Your task to perform on an android device: check battery use Image 0: 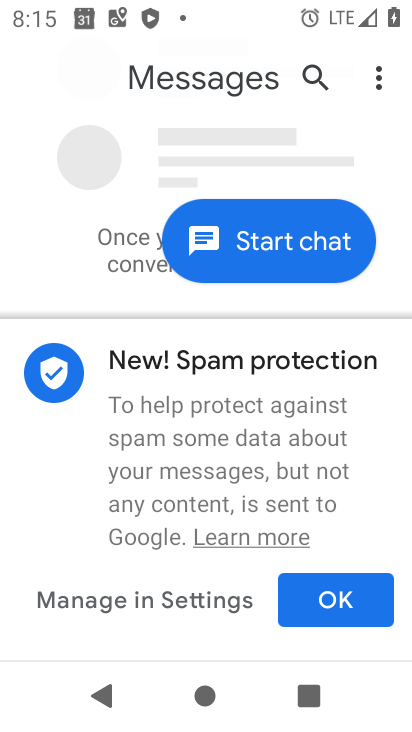
Step 0: press home button
Your task to perform on an android device: check battery use Image 1: 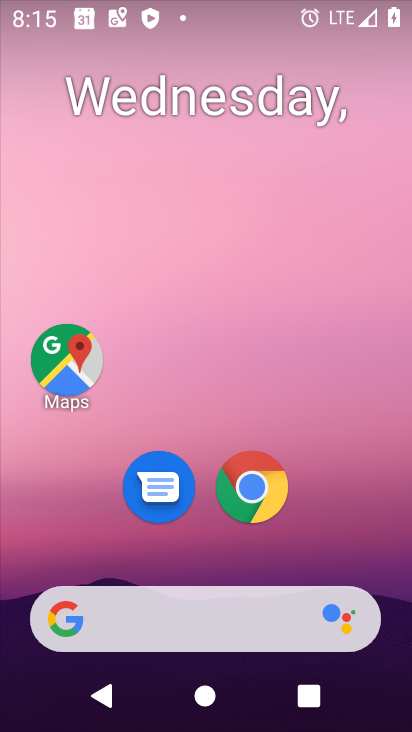
Step 1: drag from (357, 575) to (337, 0)
Your task to perform on an android device: check battery use Image 2: 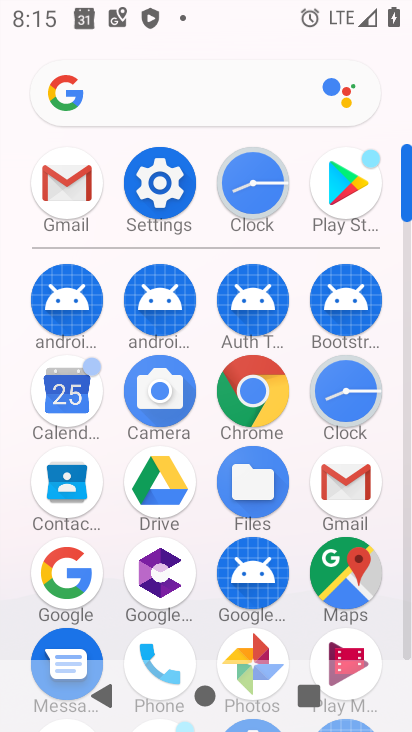
Step 2: click (166, 188)
Your task to perform on an android device: check battery use Image 3: 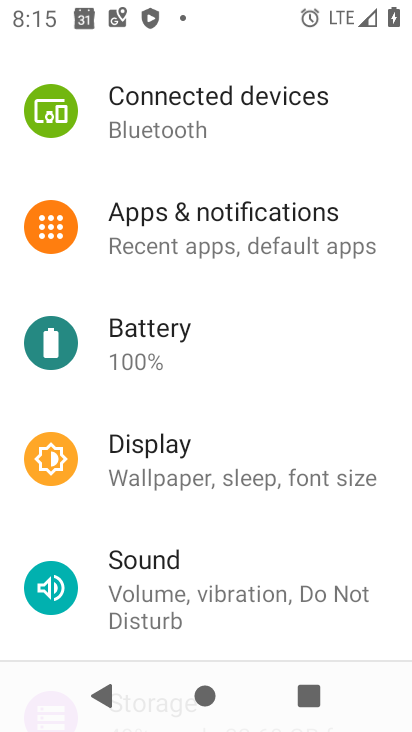
Step 3: click (131, 334)
Your task to perform on an android device: check battery use Image 4: 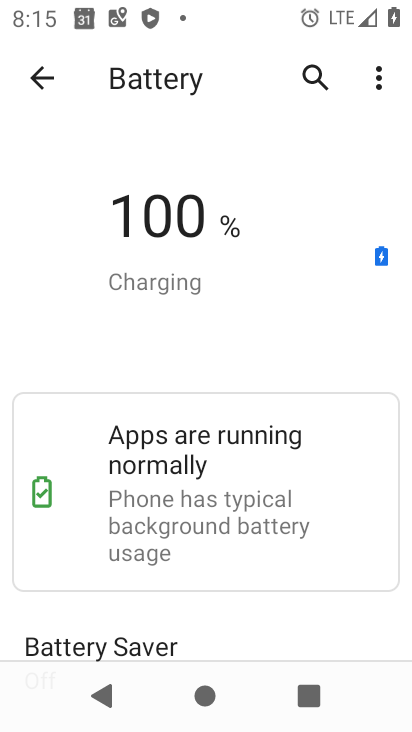
Step 4: click (377, 76)
Your task to perform on an android device: check battery use Image 5: 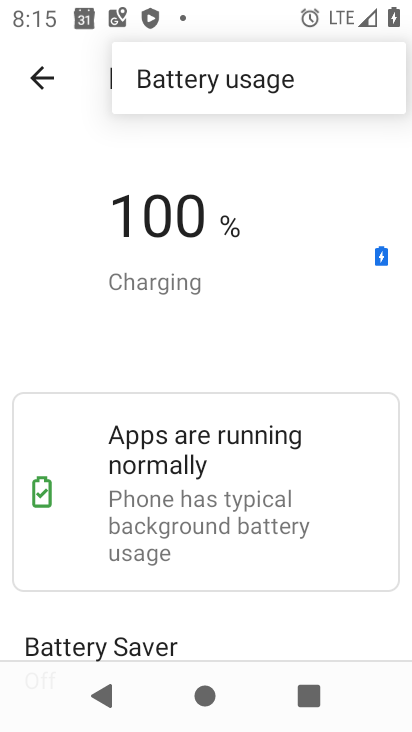
Step 5: click (234, 74)
Your task to perform on an android device: check battery use Image 6: 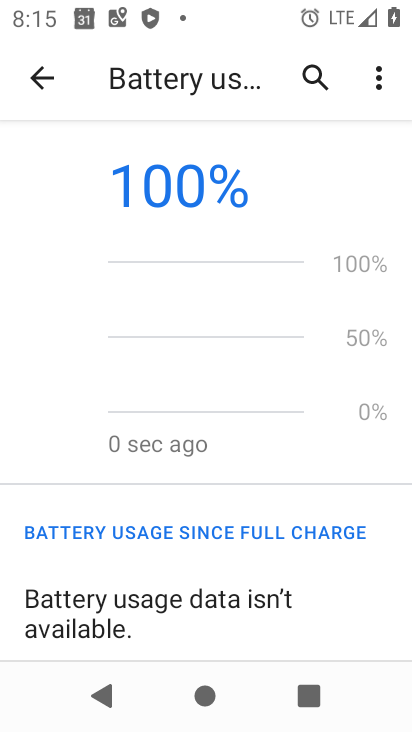
Step 6: task complete